Your task to perform on an android device: Open internet settings Image 0: 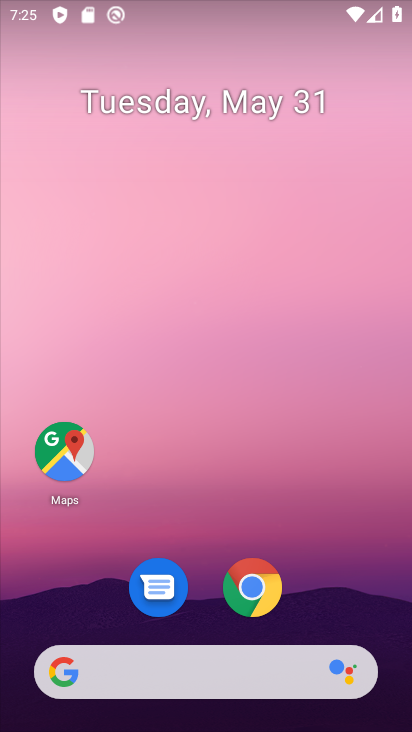
Step 0: drag from (209, 609) to (190, 110)
Your task to perform on an android device: Open internet settings Image 1: 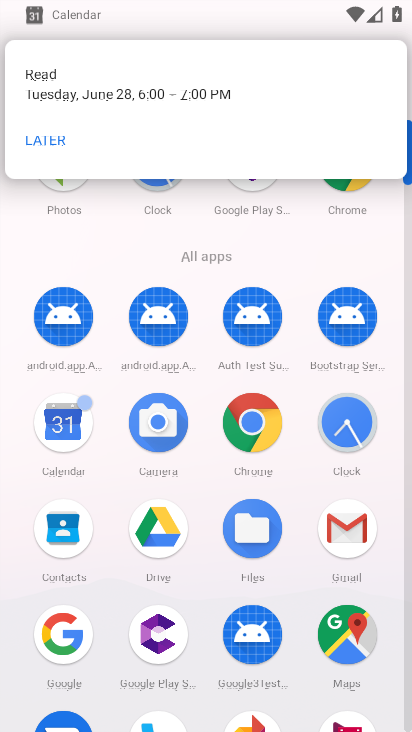
Step 1: click (37, 141)
Your task to perform on an android device: Open internet settings Image 2: 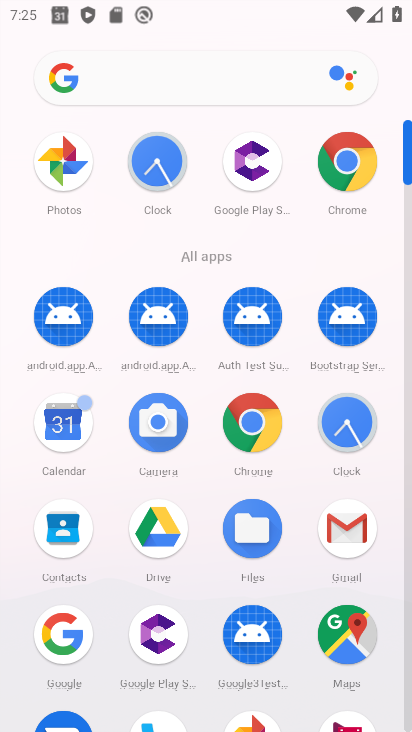
Step 2: drag from (288, 606) to (291, 280)
Your task to perform on an android device: Open internet settings Image 3: 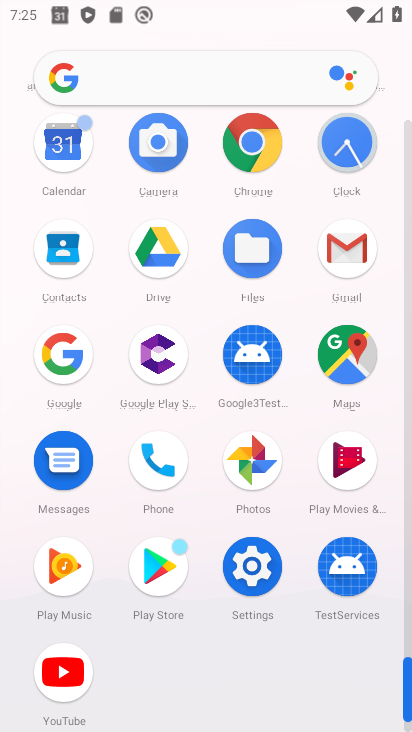
Step 3: click (254, 575)
Your task to perform on an android device: Open internet settings Image 4: 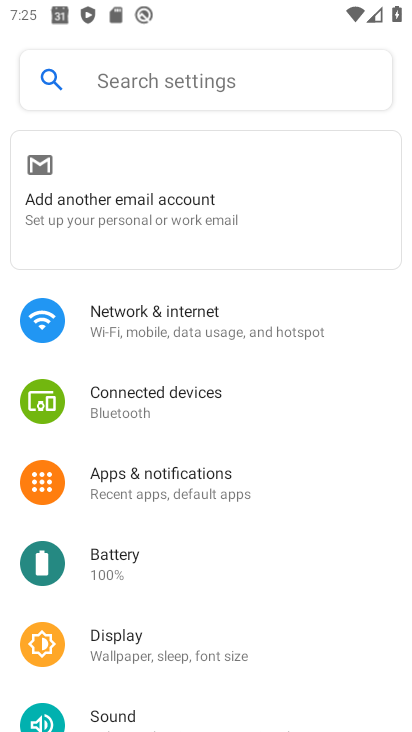
Step 4: click (145, 327)
Your task to perform on an android device: Open internet settings Image 5: 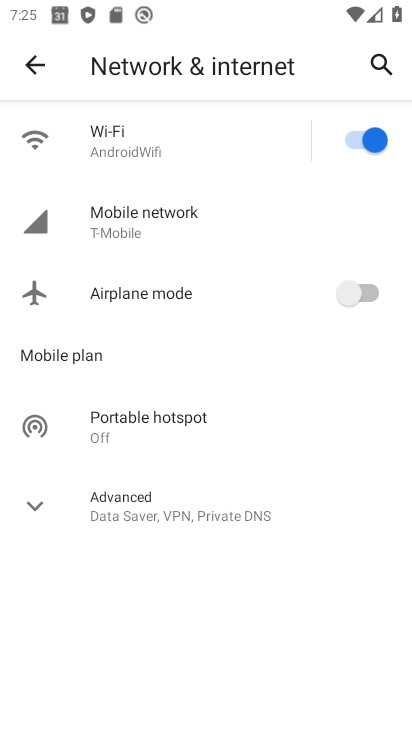
Step 5: task complete